Your task to perform on an android device: delete the emails in spam in the gmail app Image 0: 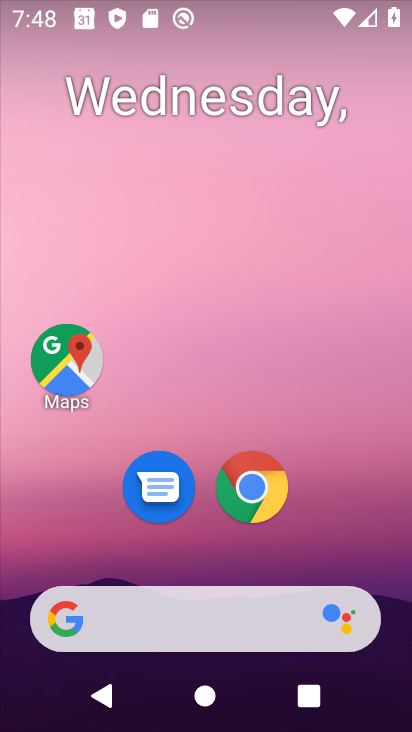
Step 0: drag from (380, 557) to (351, 34)
Your task to perform on an android device: delete the emails in spam in the gmail app Image 1: 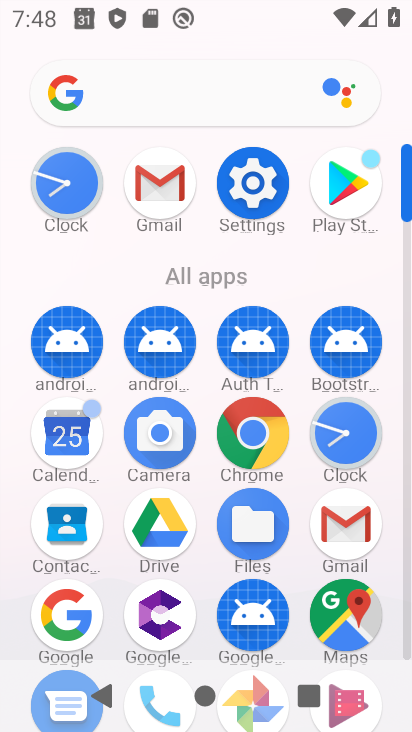
Step 1: click (154, 198)
Your task to perform on an android device: delete the emails in spam in the gmail app Image 2: 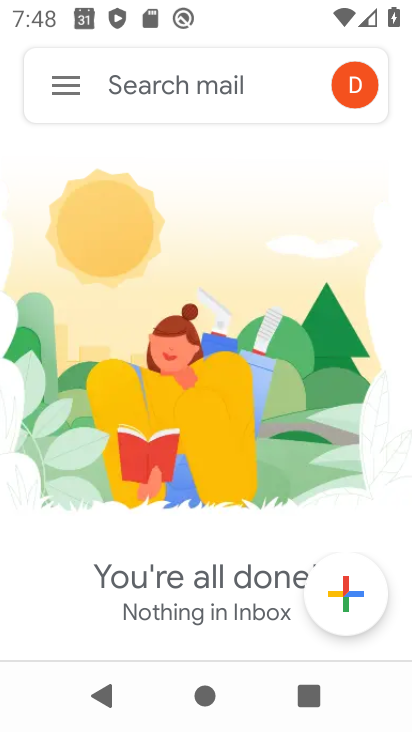
Step 2: click (62, 91)
Your task to perform on an android device: delete the emails in spam in the gmail app Image 3: 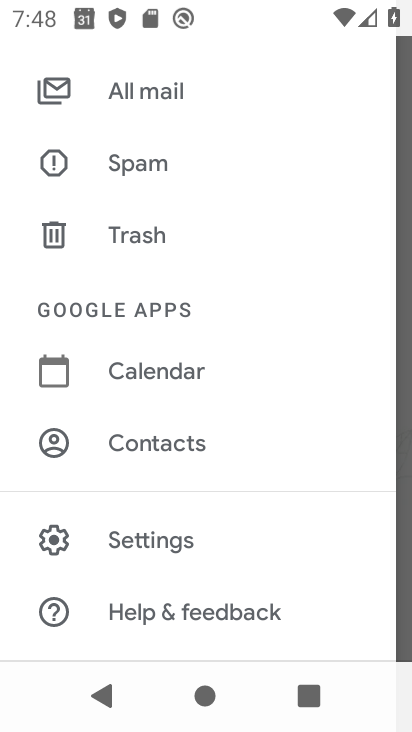
Step 3: click (108, 162)
Your task to perform on an android device: delete the emails in spam in the gmail app Image 4: 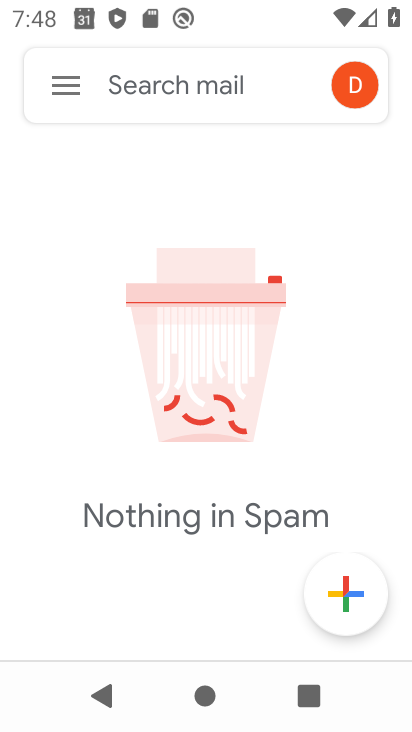
Step 4: task complete